Your task to perform on an android device: Check the weather Image 0: 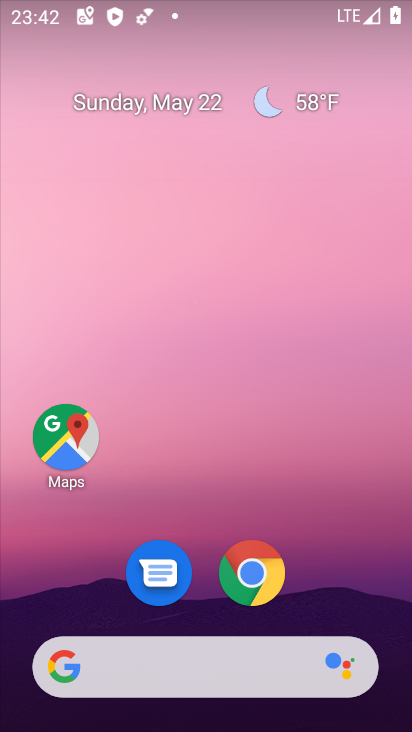
Step 0: click (297, 99)
Your task to perform on an android device: Check the weather Image 1: 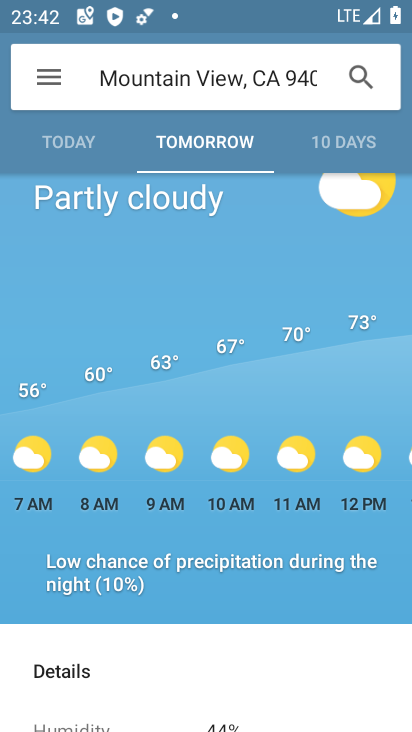
Step 1: click (68, 150)
Your task to perform on an android device: Check the weather Image 2: 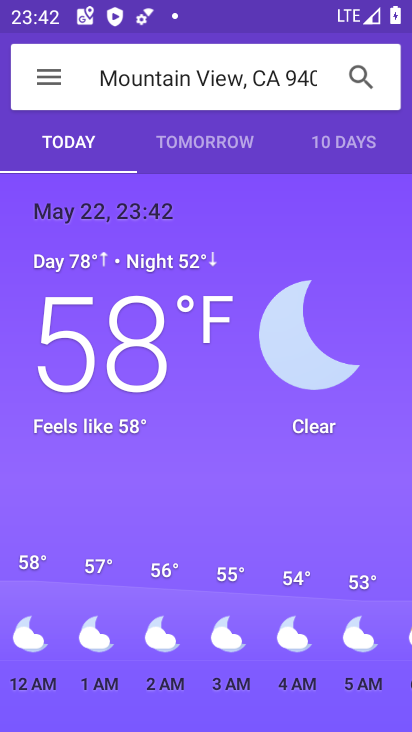
Step 2: task complete